Your task to perform on an android device: Search for vegetarian restaurants on Maps Image 0: 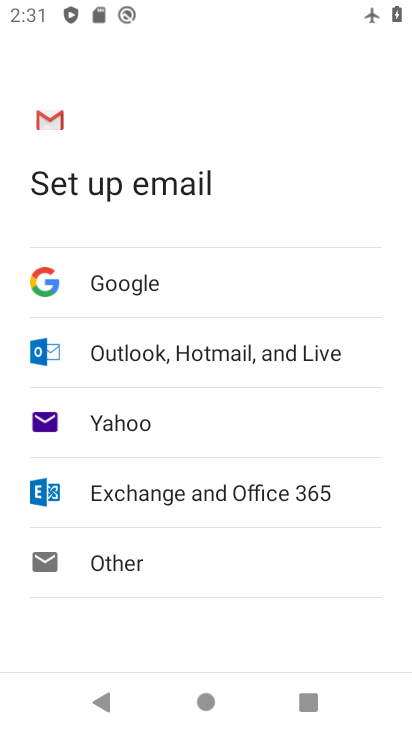
Step 0: press home button
Your task to perform on an android device: Search for vegetarian restaurants on Maps Image 1: 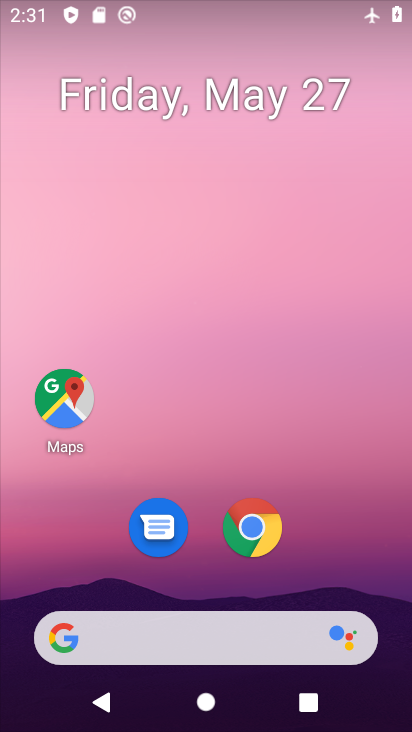
Step 1: click (78, 393)
Your task to perform on an android device: Search for vegetarian restaurants on Maps Image 2: 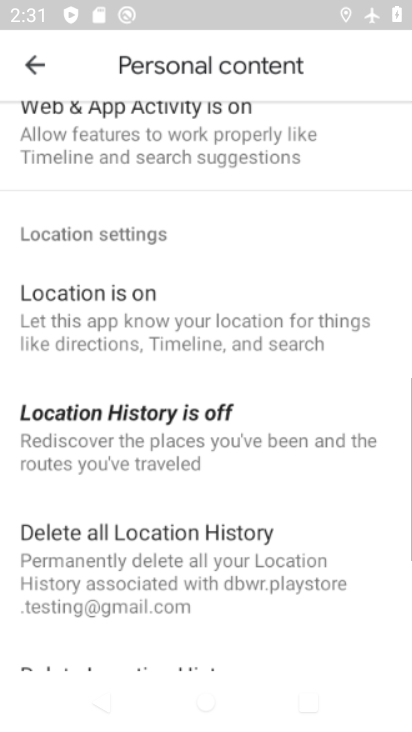
Step 2: click (51, 68)
Your task to perform on an android device: Search for vegetarian restaurants on Maps Image 3: 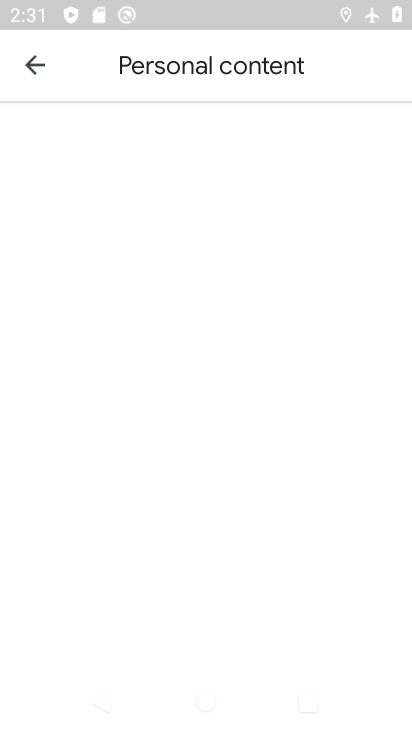
Step 3: click (50, 69)
Your task to perform on an android device: Search for vegetarian restaurants on Maps Image 4: 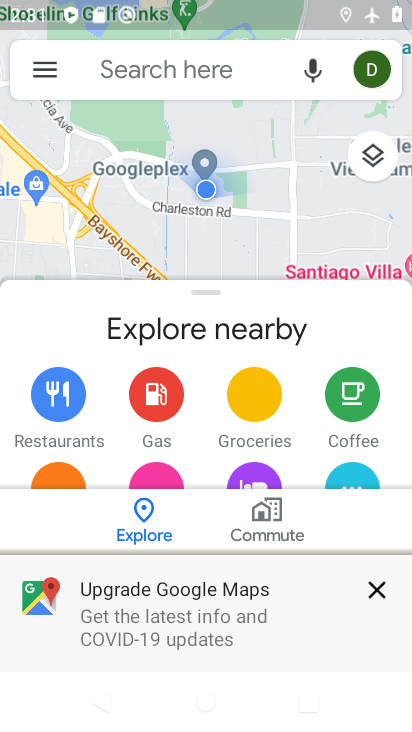
Step 4: click (191, 64)
Your task to perform on an android device: Search for vegetarian restaurants on Maps Image 5: 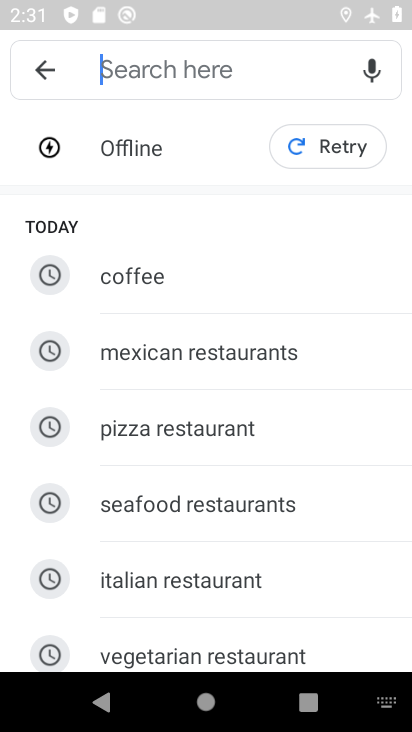
Step 5: click (205, 651)
Your task to perform on an android device: Search for vegetarian restaurants on Maps Image 6: 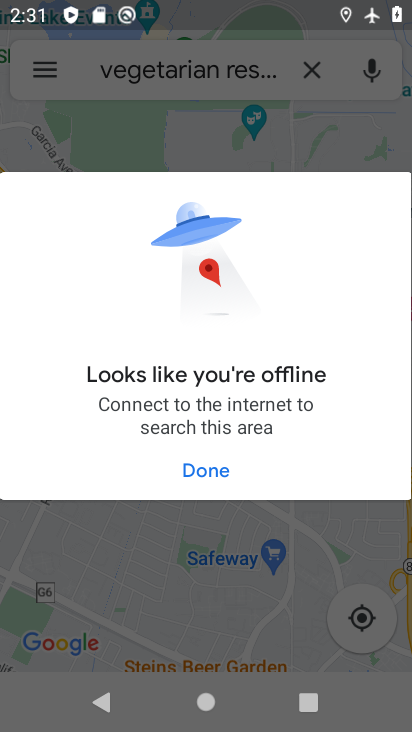
Step 6: task complete